Your task to perform on an android device: Go to battery settings Image 0: 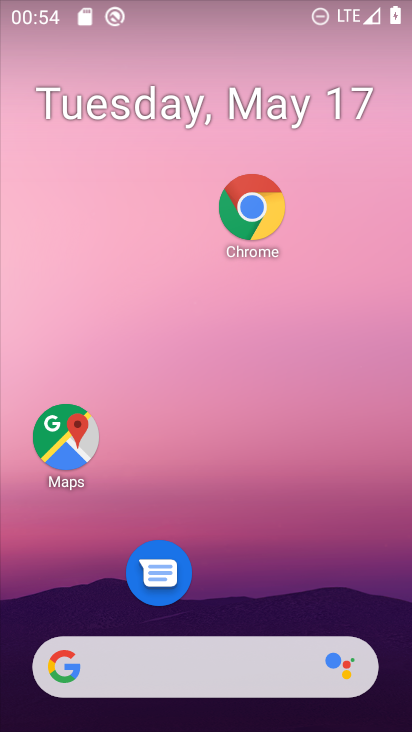
Step 0: drag from (263, 613) to (236, 192)
Your task to perform on an android device: Go to battery settings Image 1: 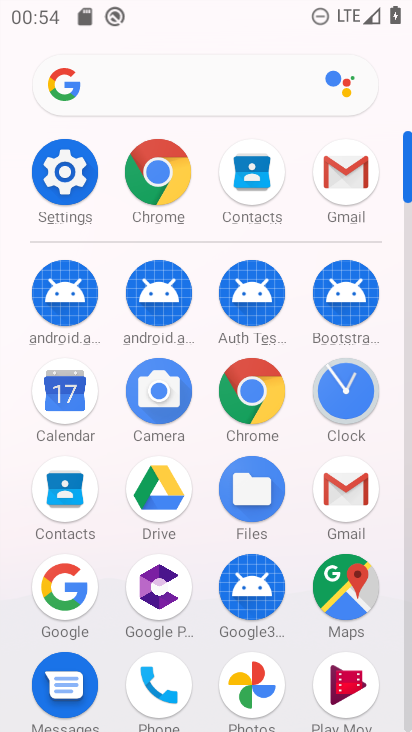
Step 1: click (80, 187)
Your task to perform on an android device: Go to battery settings Image 2: 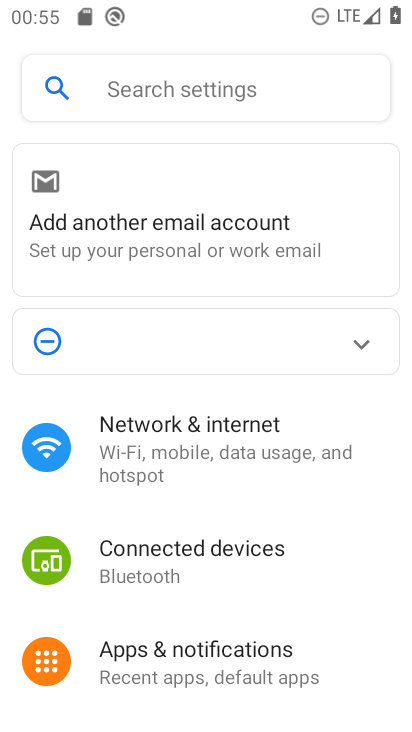
Step 2: drag from (232, 707) to (213, 315)
Your task to perform on an android device: Go to battery settings Image 3: 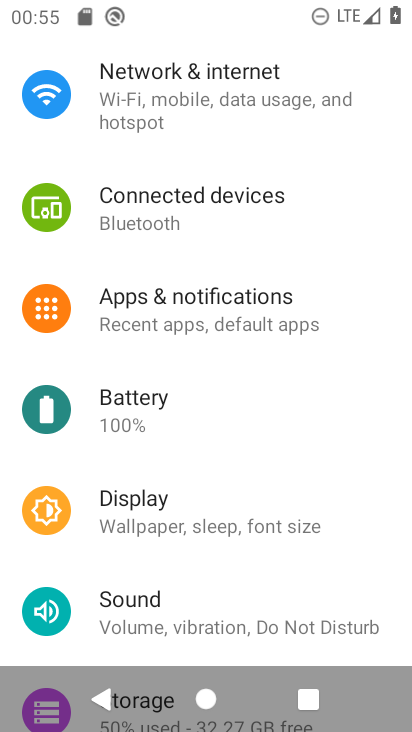
Step 3: click (177, 419)
Your task to perform on an android device: Go to battery settings Image 4: 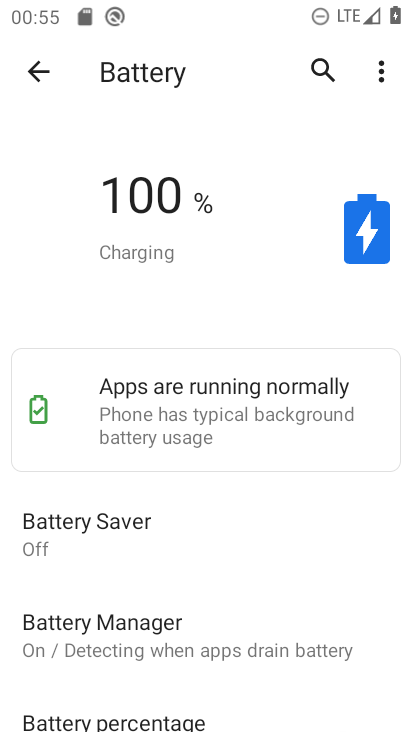
Step 4: task complete